Your task to perform on an android device: turn smart compose on in the gmail app Image 0: 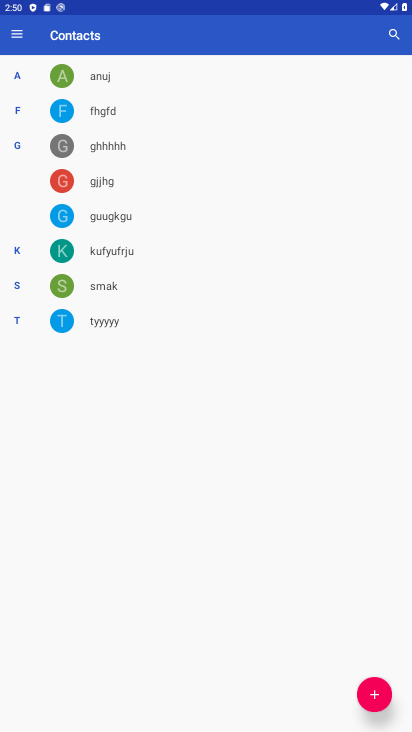
Step 0: press home button
Your task to perform on an android device: turn smart compose on in the gmail app Image 1: 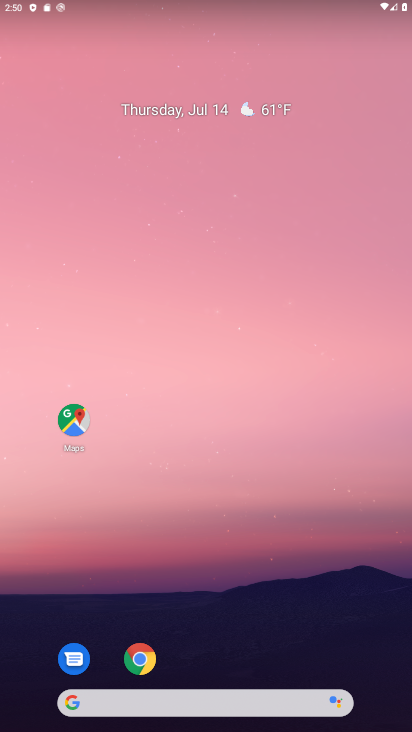
Step 1: drag from (185, 704) to (244, 120)
Your task to perform on an android device: turn smart compose on in the gmail app Image 2: 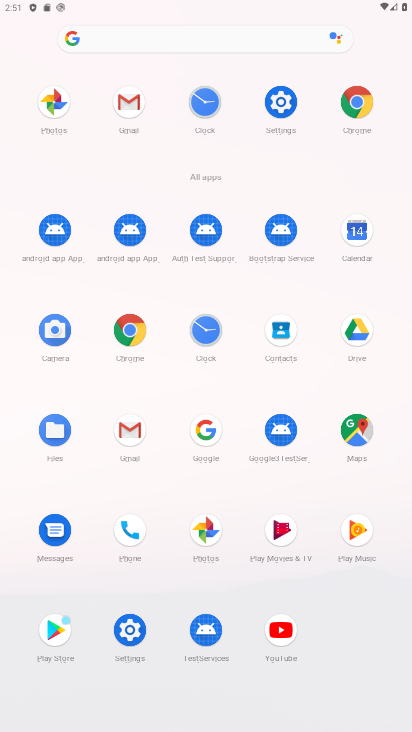
Step 2: click (127, 100)
Your task to perform on an android device: turn smart compose on in the gmail app Image 3: 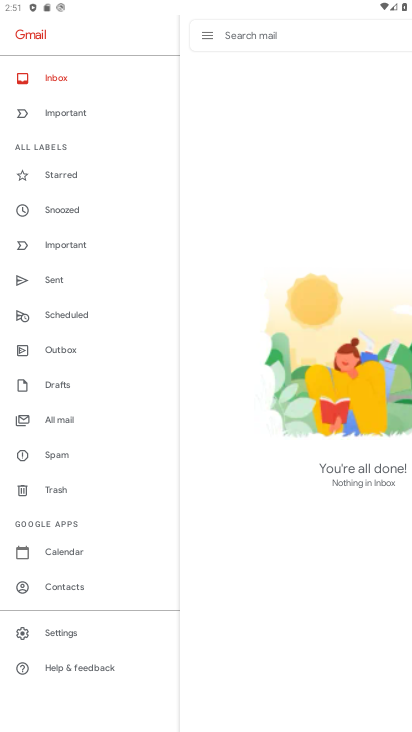
Step 3: click (70, 636)
Your task to perform on an android device: turn smart compose on in the gmail app Image 4: 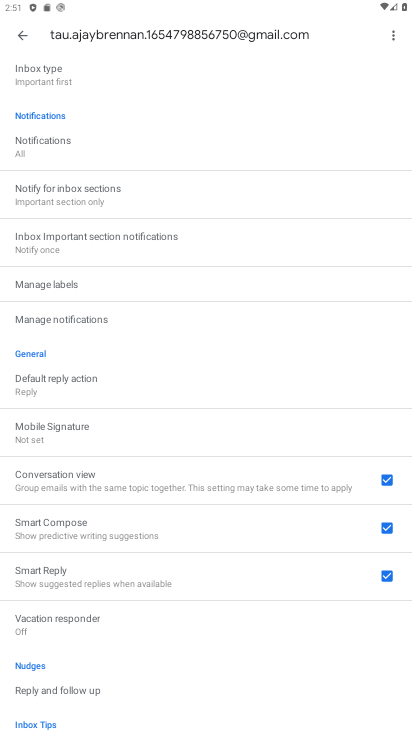
Step 4: task complete